Your task to perform on an android device: Open Chrome and go to settings Image 0: 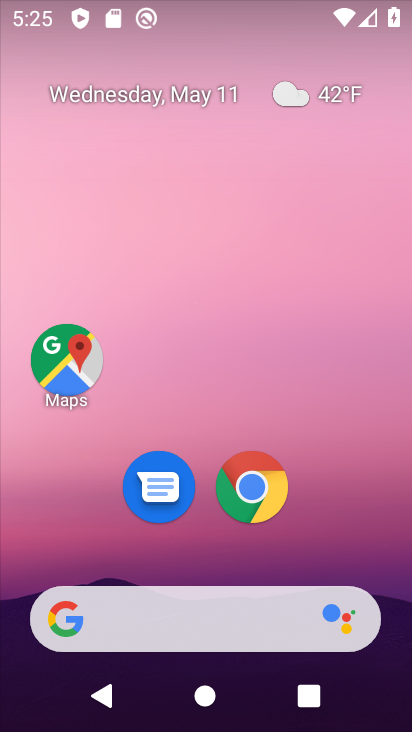
Step 0: click (271, 491)
Your task to perform on an android device: Open Chrome and go to settings Image 1: 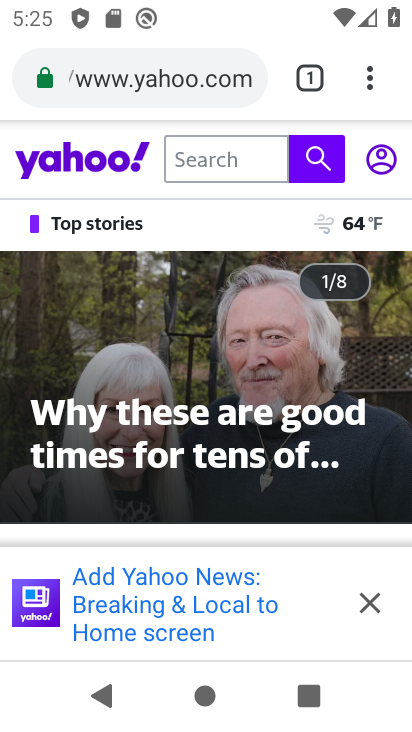
Step 1: click (371, 72)
Your task to perform on an android device: Open Chrome and go to settings Image 2: 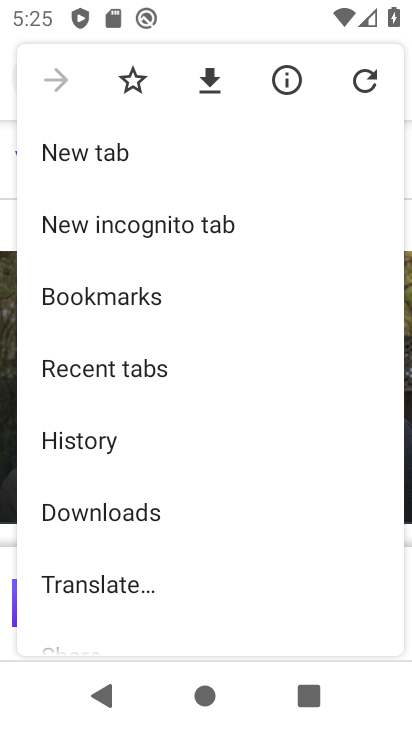
Step 2: drag from (119, 513) to (143, 193)
Your task to perform on an android device: Open Chrome and go to settings Image 3: 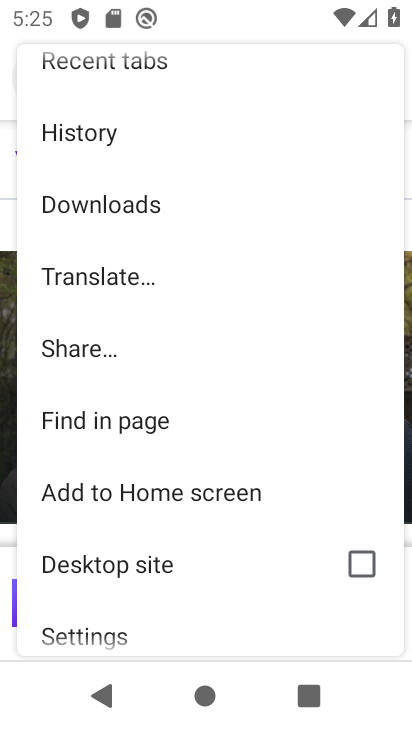
Step 3: drag from (109, 602) to (156, 321)
Your task to perform on an android device: Open Chrome and go to settings Image 4: 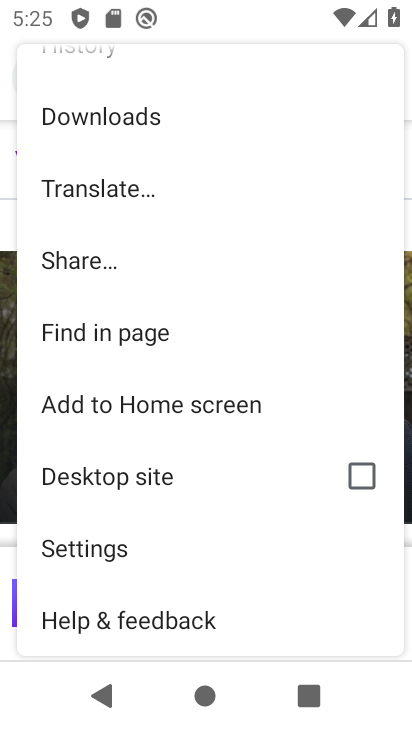
Step 4: click (116, 549)
Your task to perform on an android device: Open Chrome and go to settings Image 5: 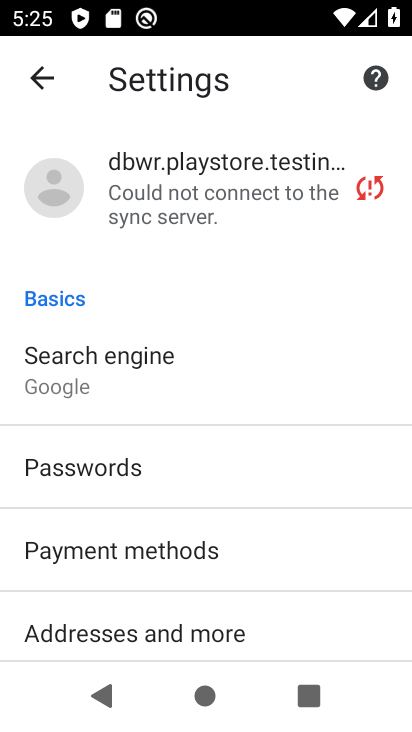
Step 5: task complete